Your task to perform on an android device: Open Google Image 0: 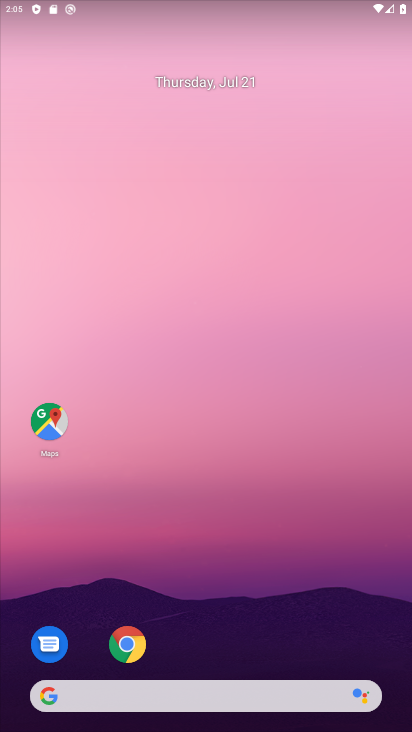
Step 0: drag from (275, 643) to (206, 94)
Your task to perform on an android device: Open Google Image 1: 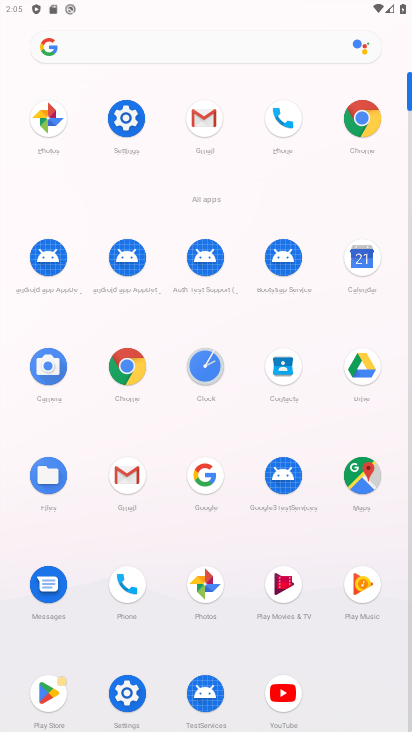
Step 1: click (210, 486)
Your task to perform on an android device: Open Google Image 2: 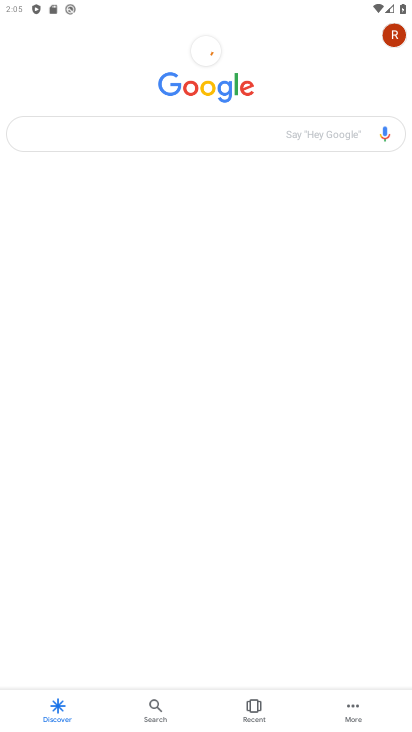
Step 2: task complete